Your task to perform on an android device: turn off sleep mode Image 0: 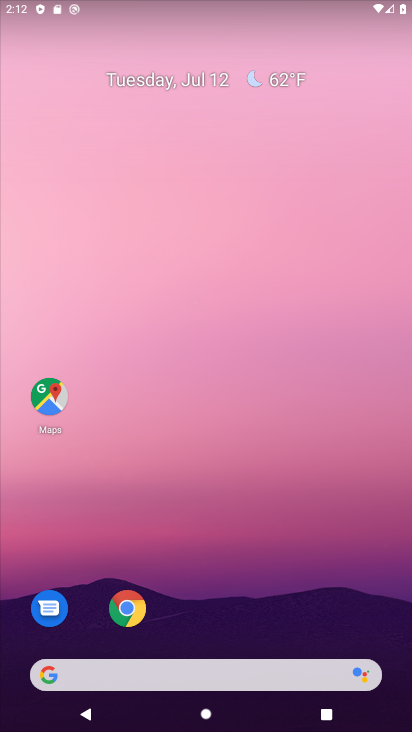
Step 0: press home button
Your task to perform on an android device: turn off sleep mode Image 1: 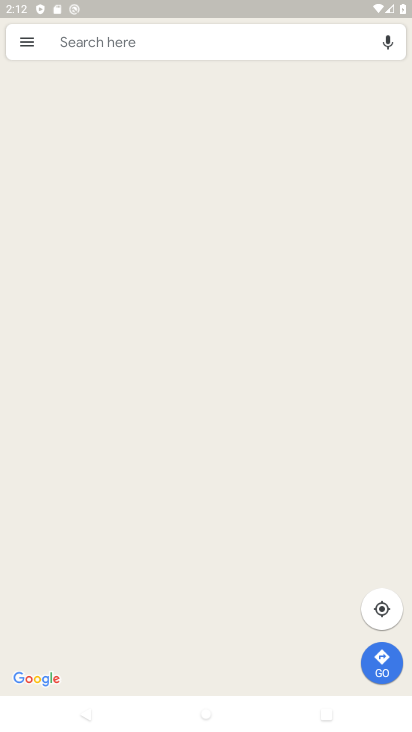
Step 1: drag from (162, 676) to (356, 52)
Your task to perform on an android device: turn off sleep mode Image 2: 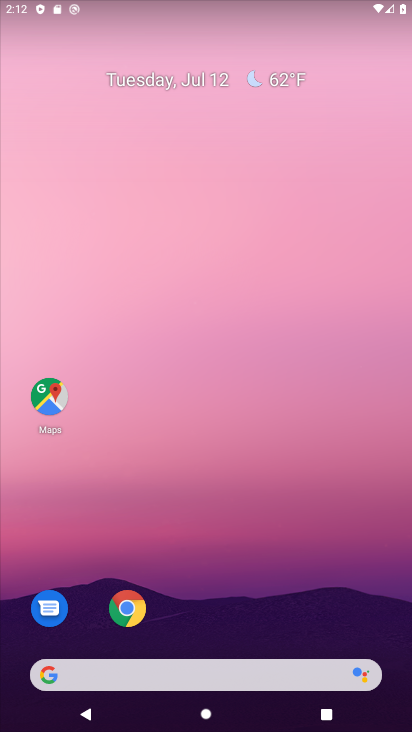
Step 2: drag from (225, 679) to (330, 163)
Your task to perform on an android device: turn off sleep mode Image 3: 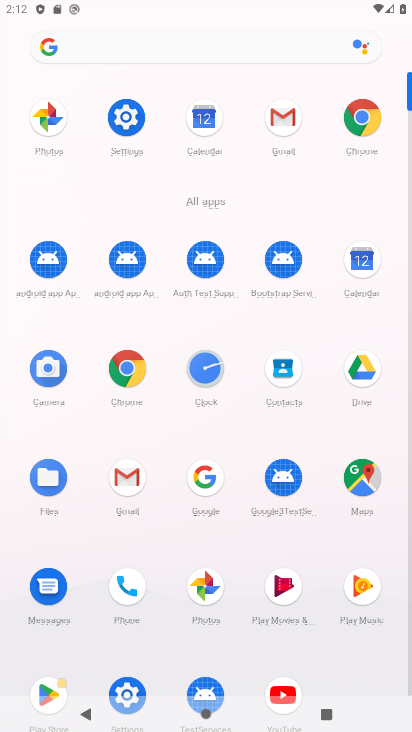
Step 3: click (131, 122)
Your task to perform on an android device: turn off sleep mode Image 4: 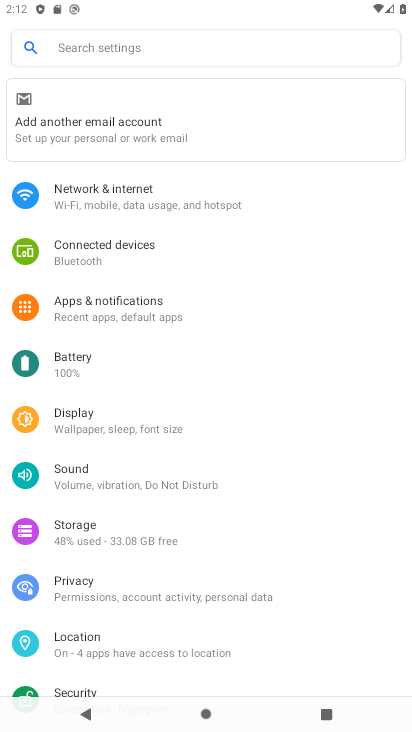
Step 4: click (143, 425)
Your task to perform on an android device: turn off sleep mode Image 5: 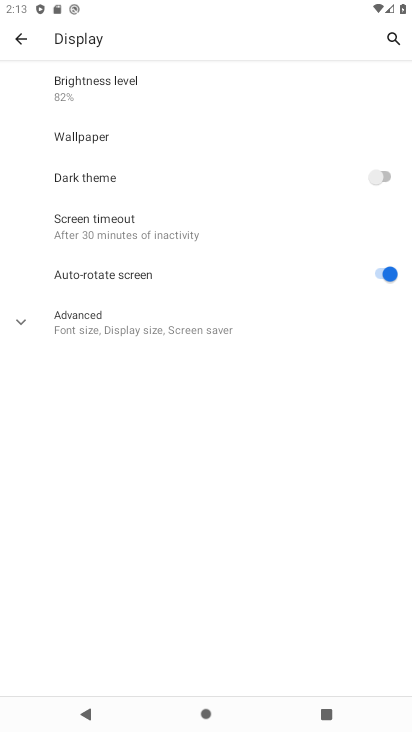
Step 5: click (155, 318)
Your task to perform on an android device: turn off sleep mode Image 6: 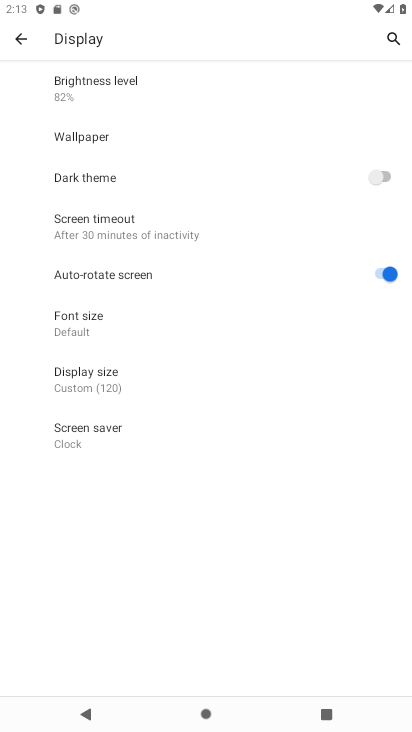
Step 6: task complete